Your task to perform on an android device: change the upload size in google photos Image 0: 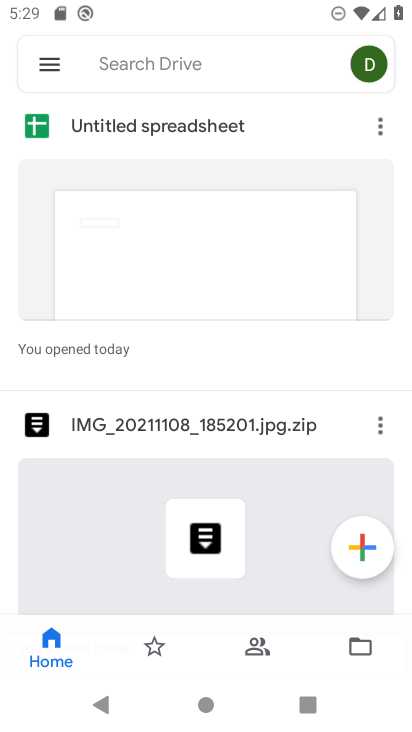
Step 0: press home button
Your task to perform on an android device: change the upload size in google photos Image 1: 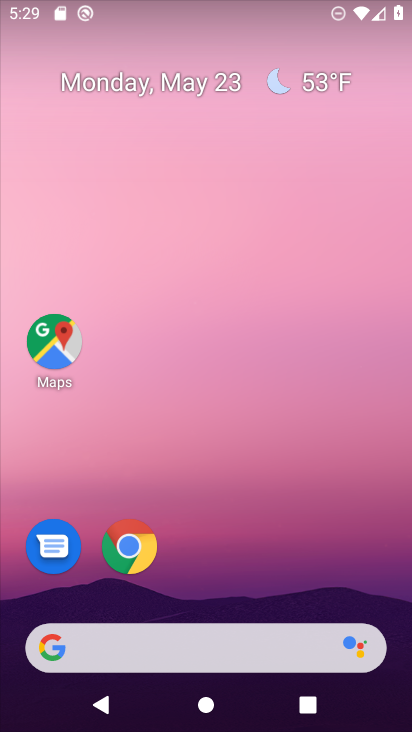
Step 1: drag from (249, 584) to (226, 58)
Your task to perform on an android device: change the upload size in google photos Image 2: 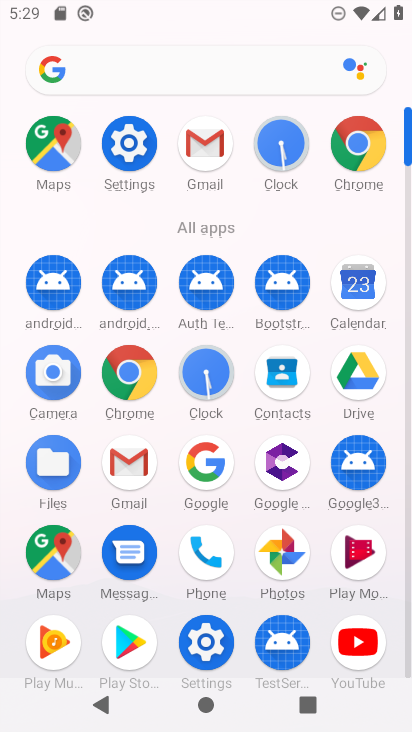
Step 2: click (278, 544)
Your task to perform on an android device: change the upload size in google photos Image 3: 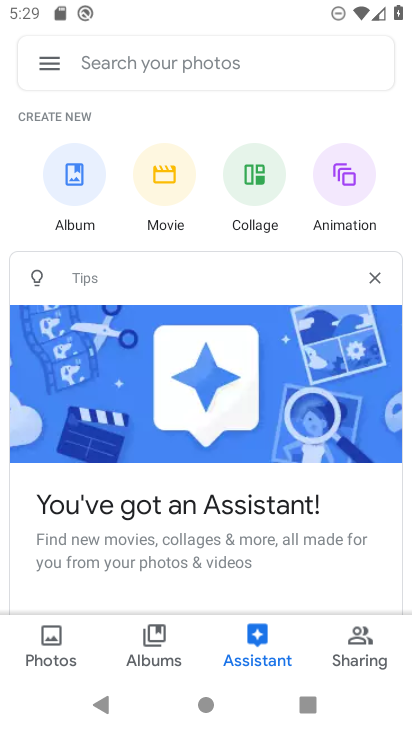
Step 3: click (37, 63)
Your task to perform on an android device: change the upload size in google photos Image 4: 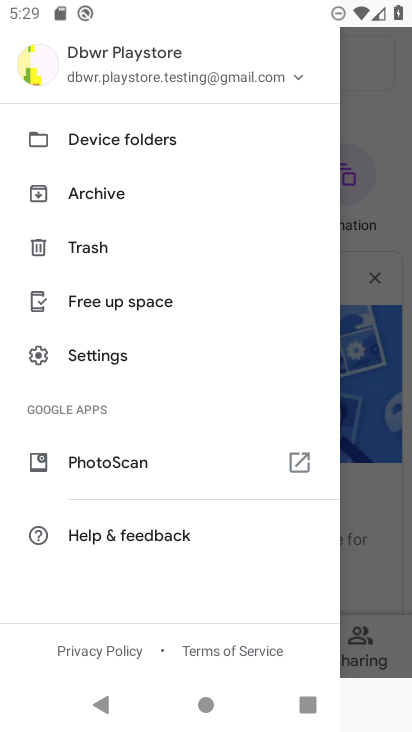
Step 4: click (100, 354)
Your task to perform on an android device: change the upload size in google photos Image 5: 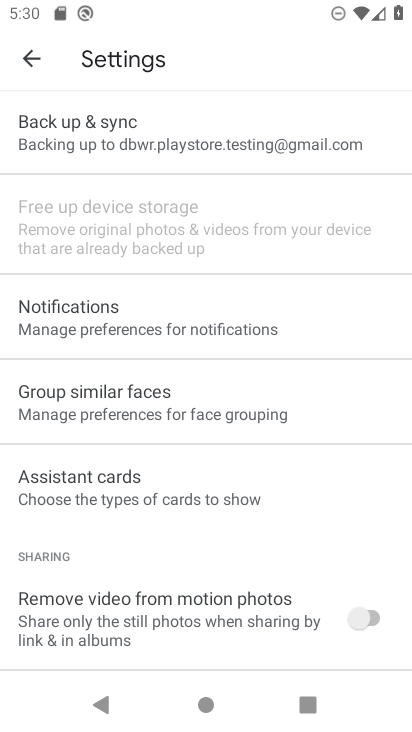
Step 5: click (196, 137)
Your task to perform on an android device: change the upload size in google photos Image 6: 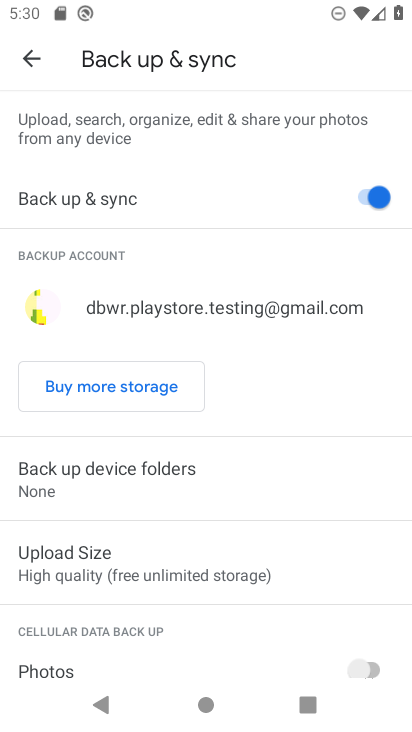
Step 6: click (147, 579)
Your task to perform on an android device: change the upload size in google photos Image 7: 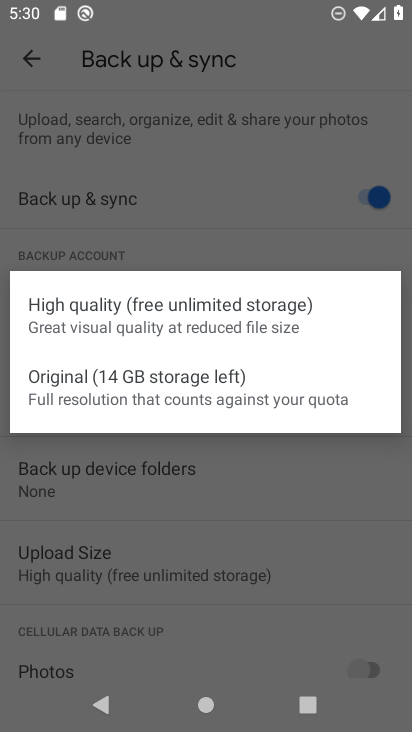
Step 7: click (150, 389)
Your task to perform on an android device: change the upload size in google photos Image 8: 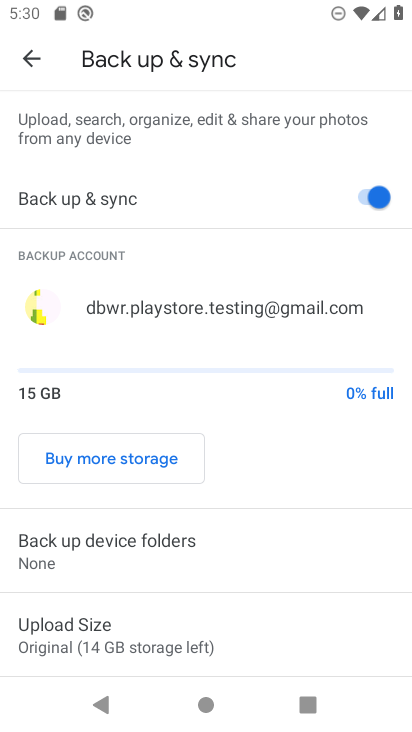
Step 8: task complete